Your task to perform on an android device: Open battery settings Image 0: 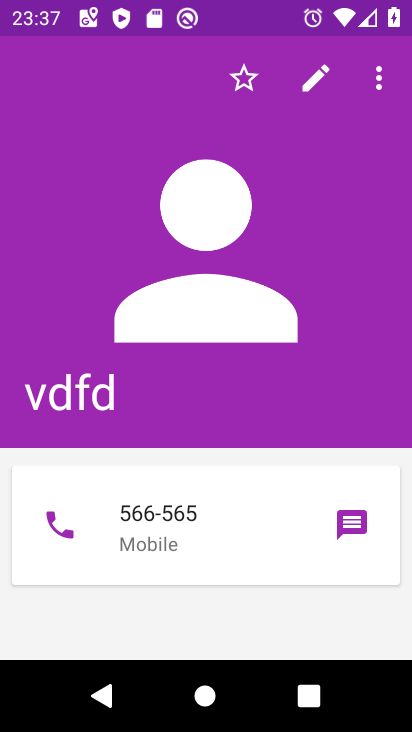
Step 0: press back button
Your task to perform on an android device: Open battery settings Image 1: 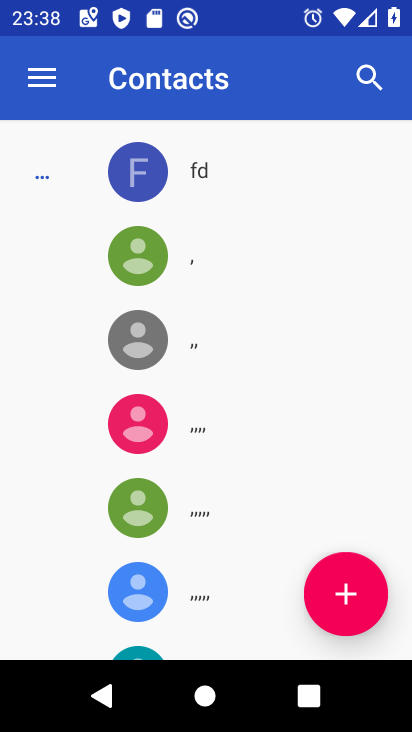
Step 1: press back button
Your task to perform on an android device: Open battery settings Image 2: 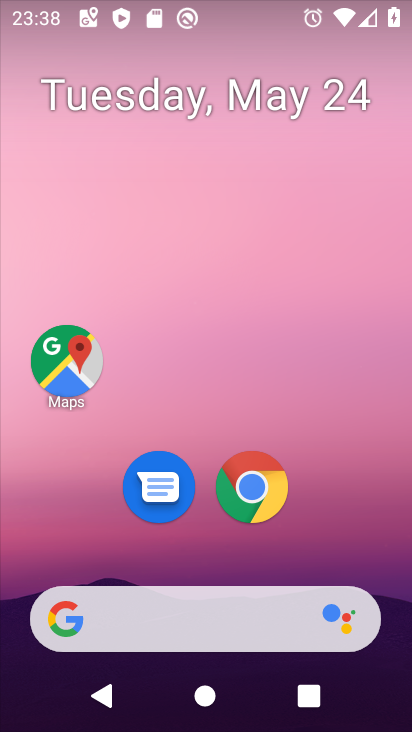
Step 2: drag from (200, 566) to (255, 80)
Your task to perform on an android device: Open battery settings Image 3: 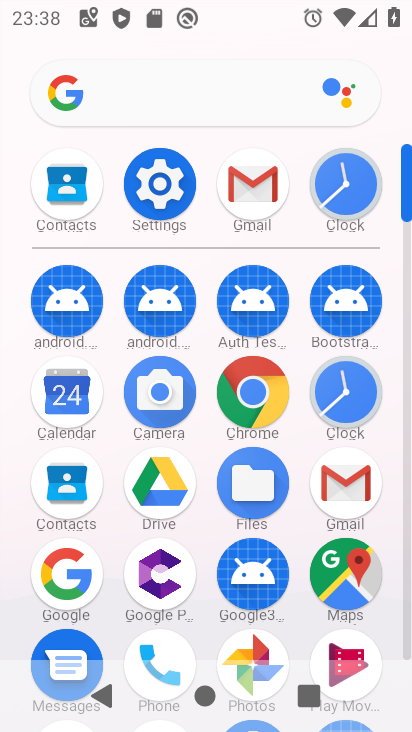
Step 3: click (157, 180)
Your task to perform on an android device: Open battery settings Image 4: 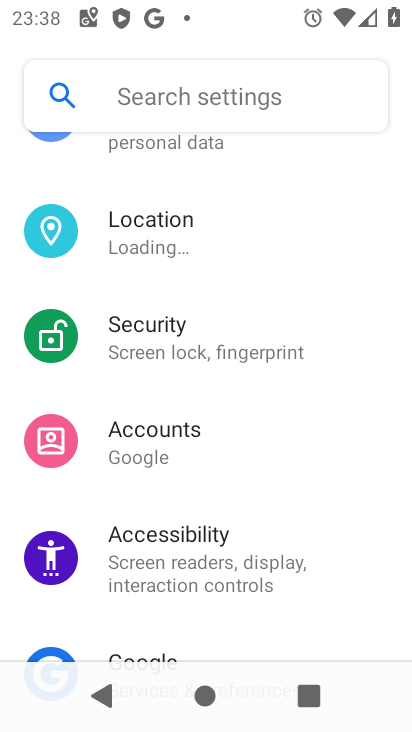
Step 4: drag from (208, 214) to (178, 620)
Your task to perform on an android device: Open battery settings Image 5: 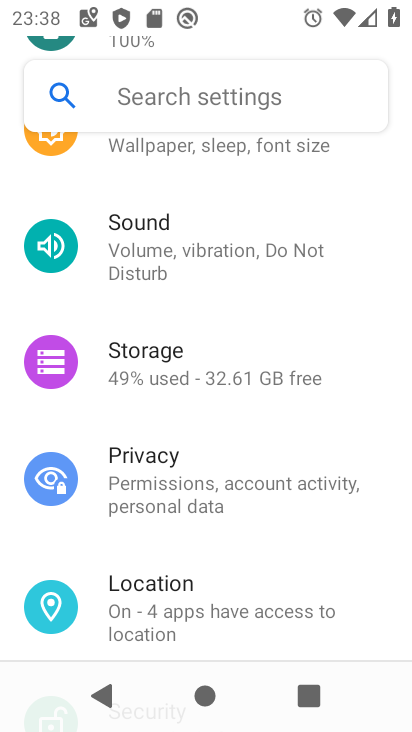
Step 5: drag from (210, 290) to (174, 604)
Your task to perform on an android device: Open battery settings Image 6: 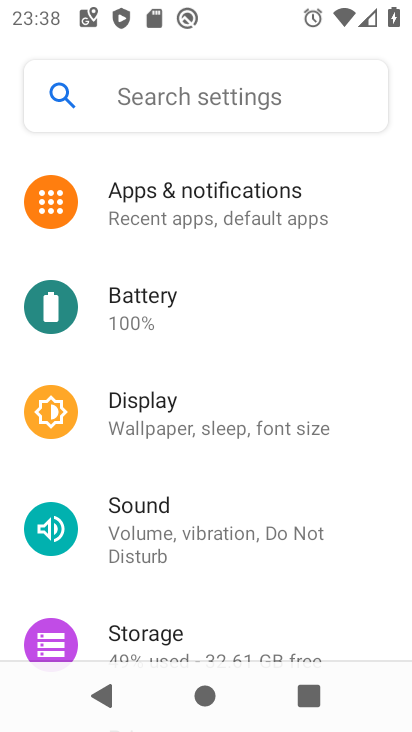
Step 6: click (132, 293)
Your task to perform on an android device: Open battery settings Image 7: 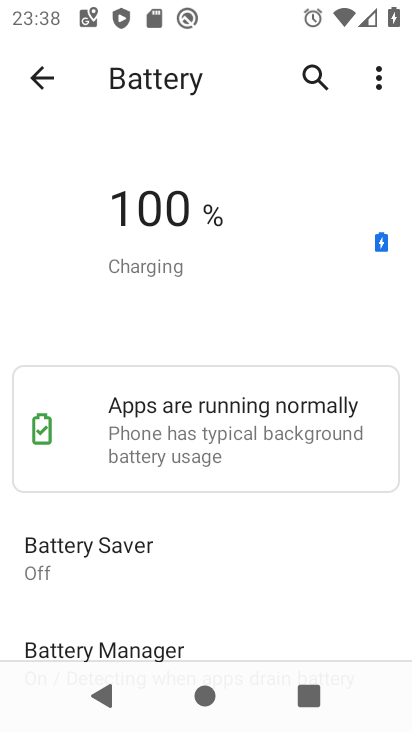
Step 7: task complete